Your task to perform on an android device: What is the news today? Image 0: 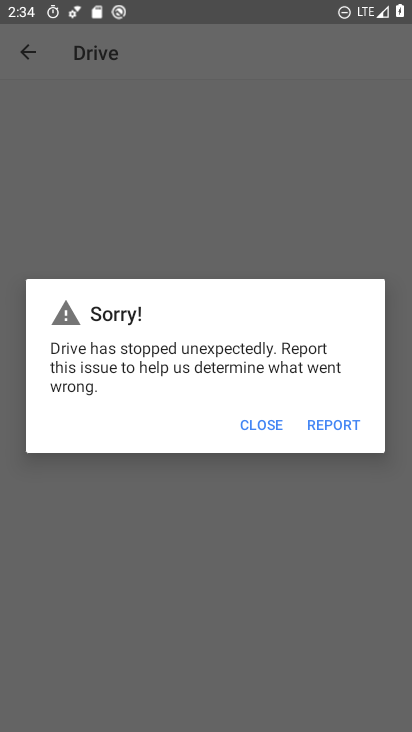
Step 0: press home button
Your task to perform on an android device: What is the news today? Image 1: 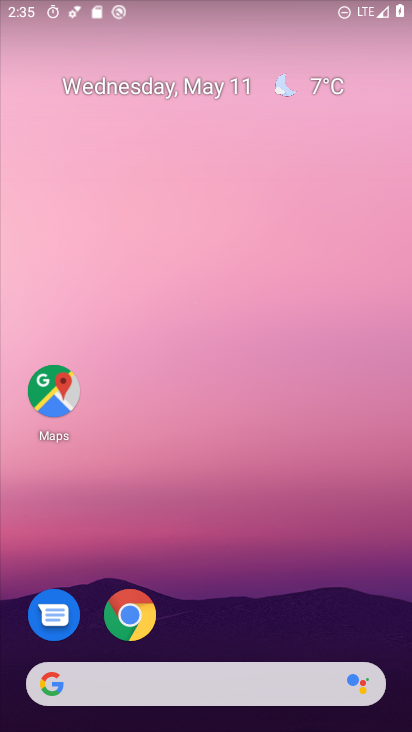
Step 1: drag from (19, 245) to (376, 277)
Your task to perform on an android device: What is the news today? Image 2: 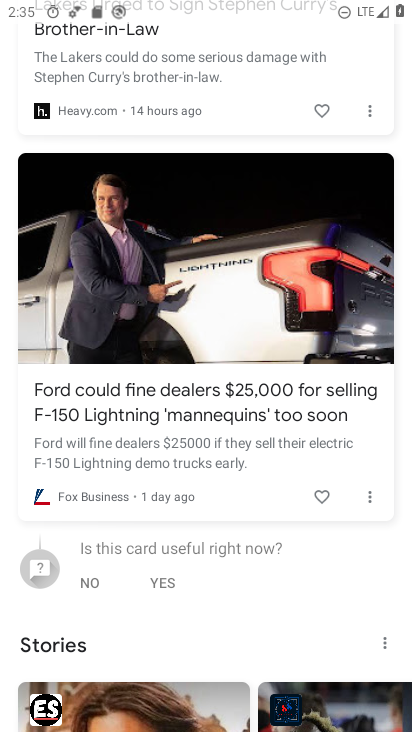
Step 2: drag from (75, 292) to (369, 297)
Your task to perform on an android device: What is the news today? Image 3: 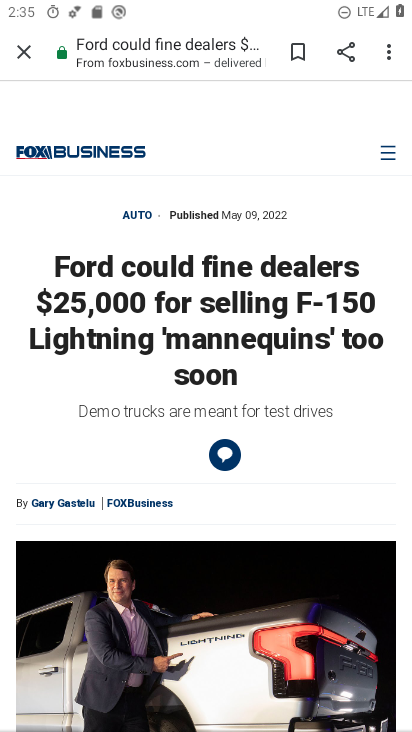
Step 3: click (29, 57)
Your task to perform on an android device: What is the news today? Image 4: 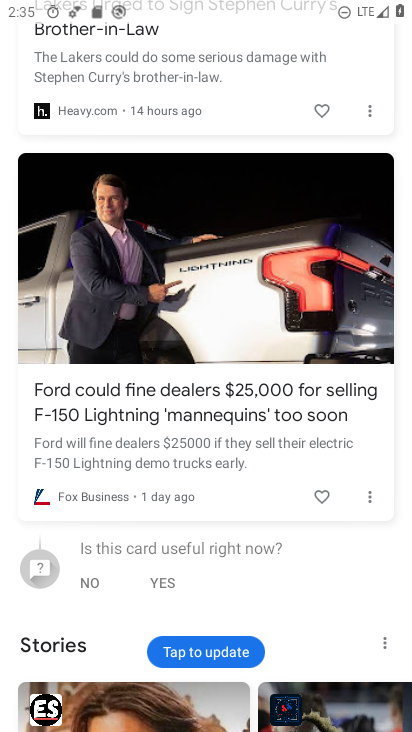
Step 4: task complete